Your task to perform on an android device: empty trash in the gmail app Image 0: 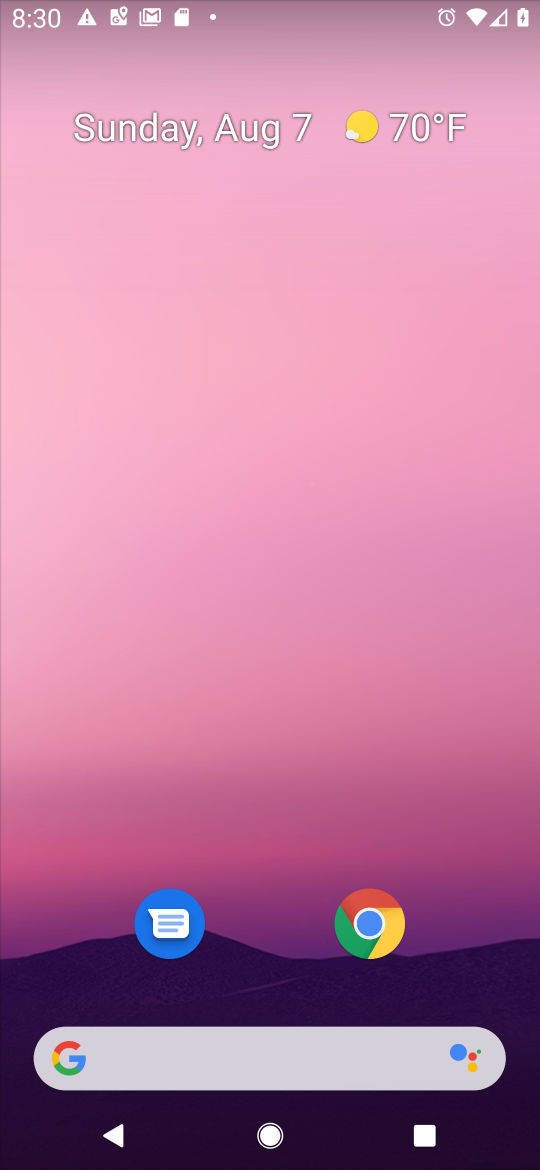
Step 0: drag from (509, 978) to (252, 113)
Your task to perform on an android device: empty trash in the gmail app Image 1: 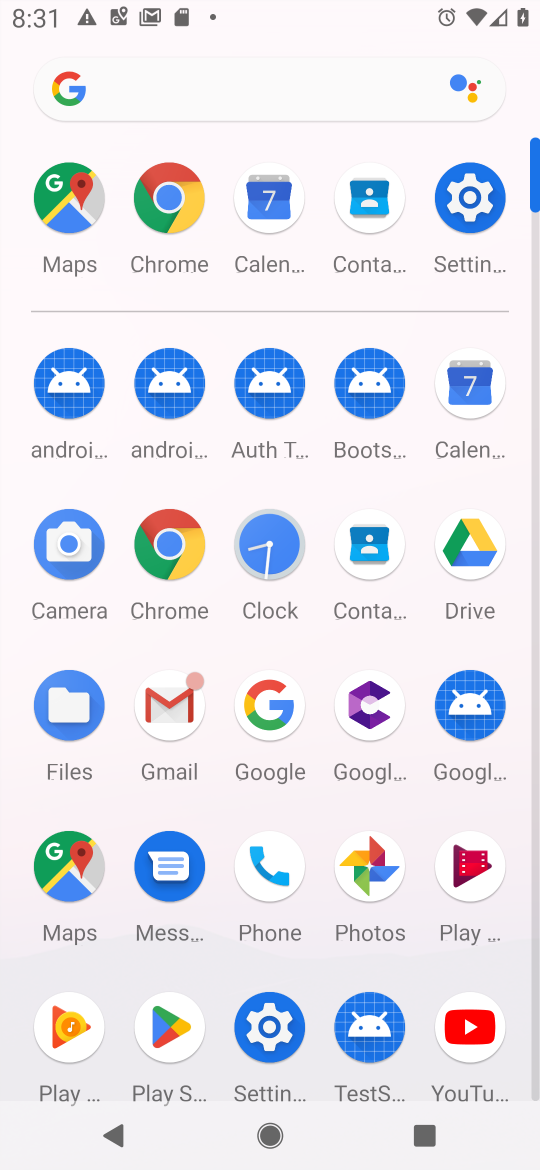
Step 1: click (51, 866)
Your task to perform on an android device: empty trash in the gmail app Image 2: 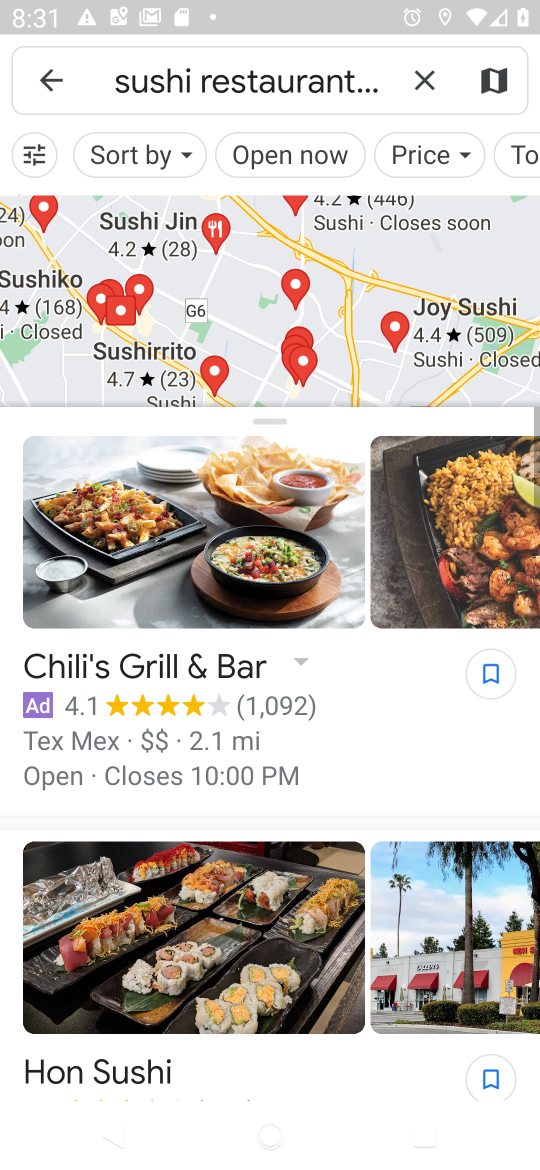
Step 2: click (420, 91)
Your task to perform on an android device: empty trash in the gmail app Image 3: 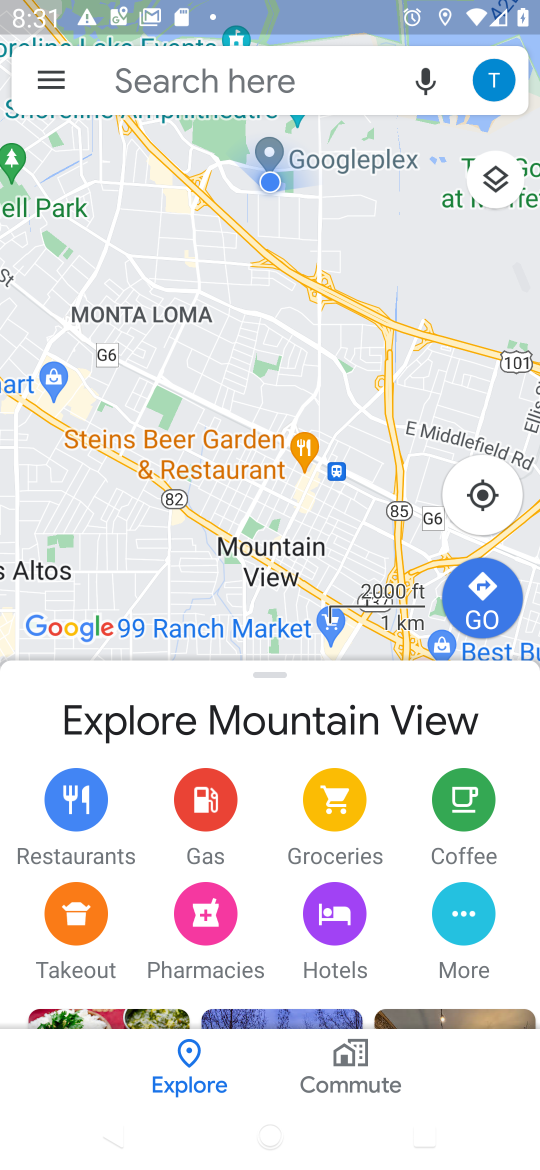
Step 3: click (193, 80)
Your task to perform on an android device: empty trash in the gmail app Image 4: 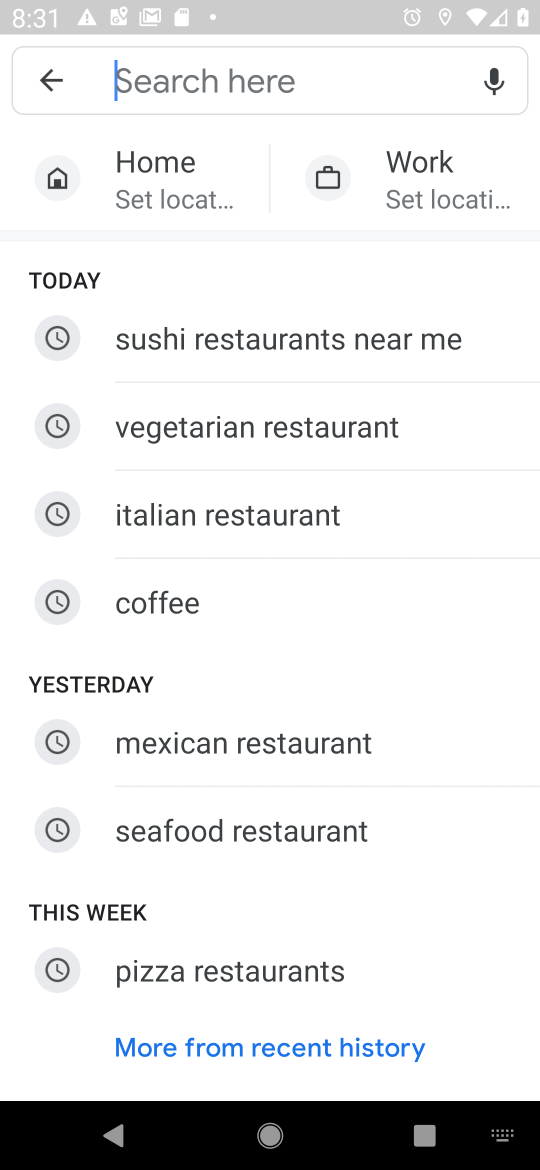
Step 4: press back button
Your task to perform on an android device: empty trash in the gmail app Image 5: 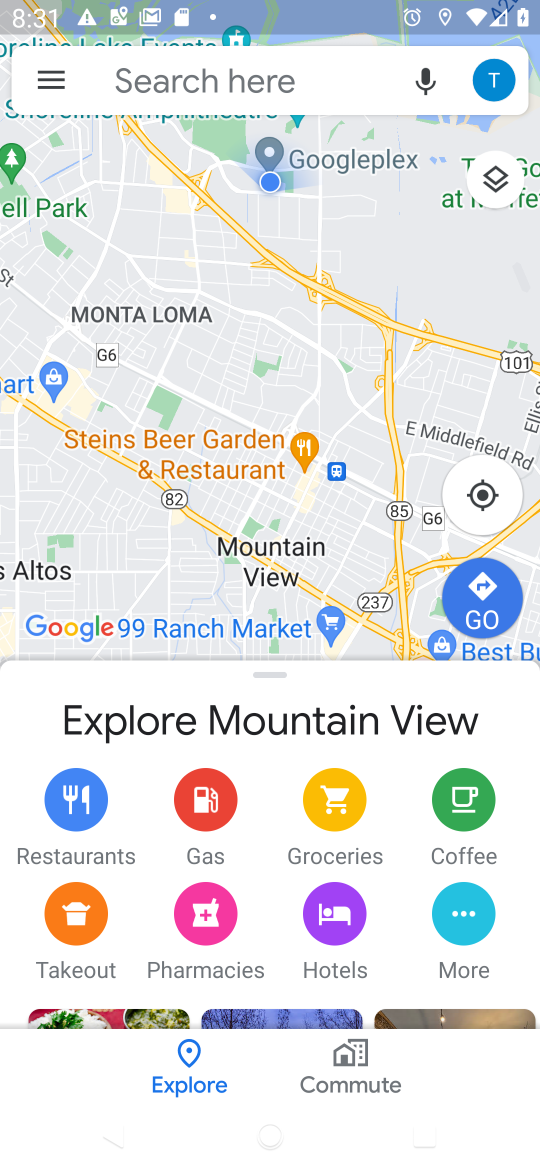
Step 5: click (53, 78)
Your task to perform on an android device: empty trash in the gmail app Image 6: 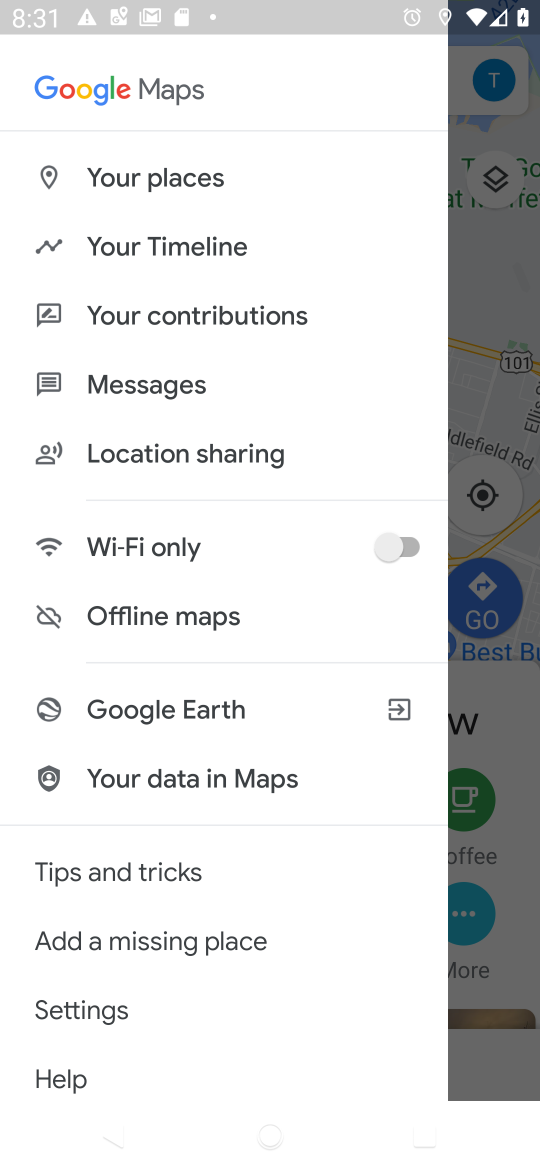
Step 6: task complete